Your task to perform on an android device: Open ESPN.com Image 0: 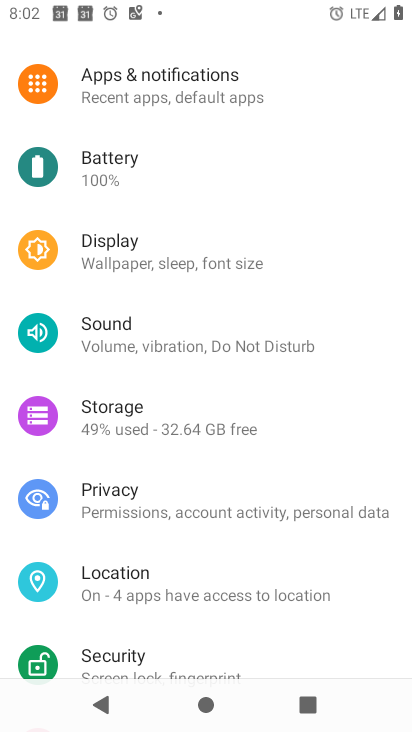
Step 0: press home button
Your task to perform on an android device: Open ESPN.com Image 1: 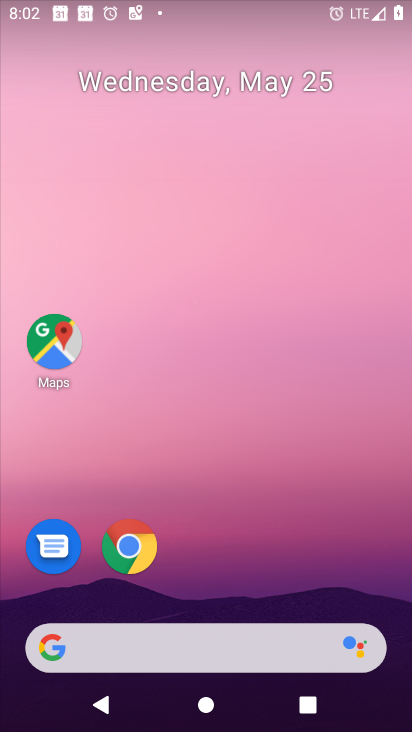
Step 1: drag from (381, 594) to (383, 233)
Your task to perform on an android device: Open ESPN.com Image 2: 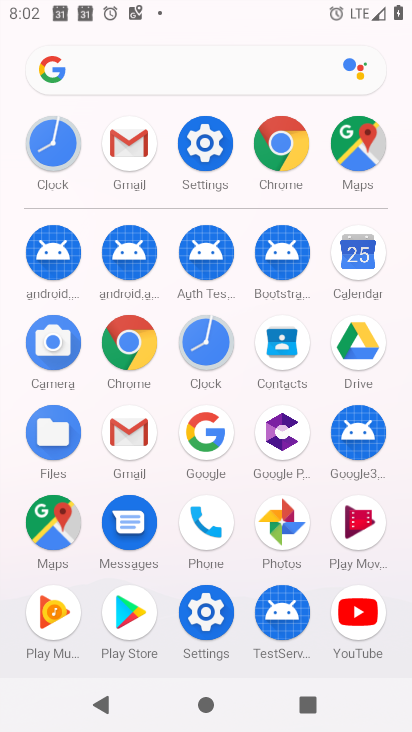
Step 2: click (136, 357)
Your task to perform on an android device: Open ESPN.com Image 3: 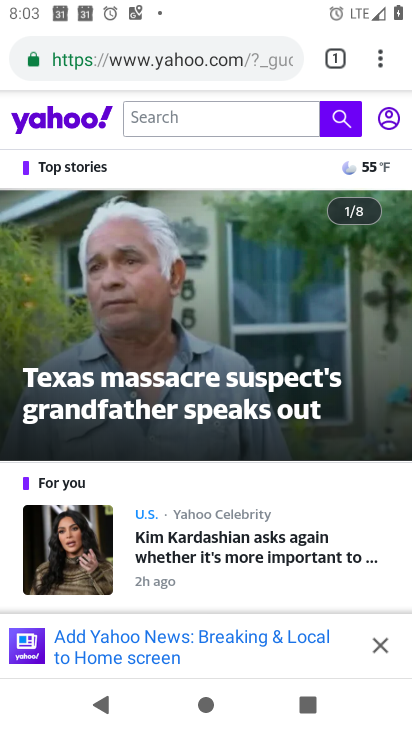
Step 3: click (221, 65)
Your task to perform on an android device: Open ESPN.com Image 4: 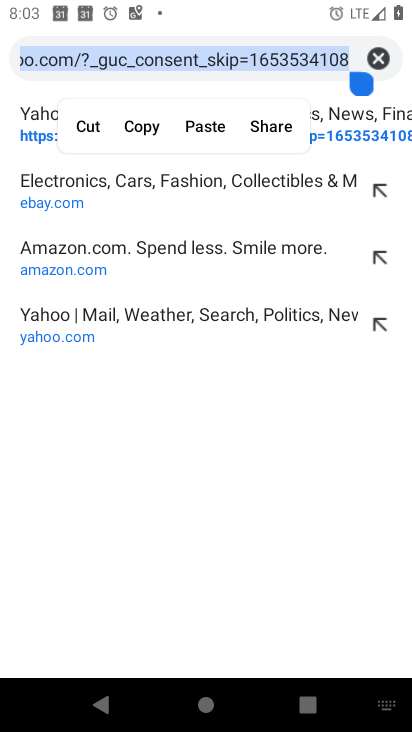
Step 4: click (383, 58)
Your task to perform on an android device: Open ESPN.com Image 5: 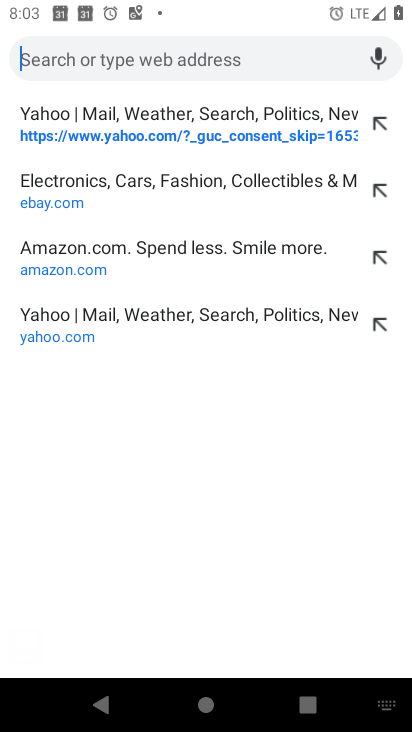
Step 5: type "espn.com"
Your task to perform on an android device: Open ESPN.com Image 6: 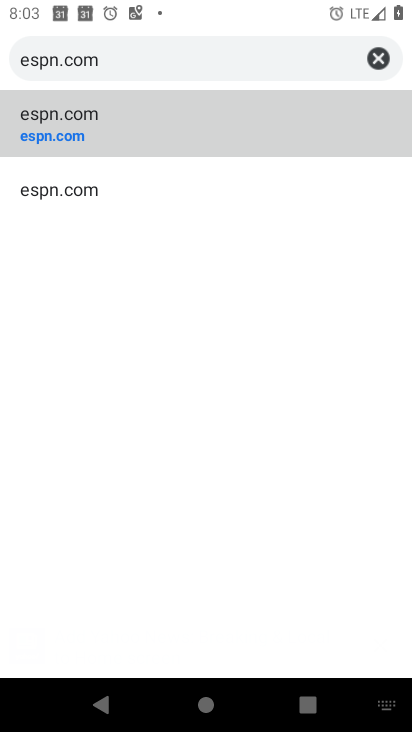
Step 6: click (232, 138)
Your task to perform on an android device: Open ESPN.com Image 7: 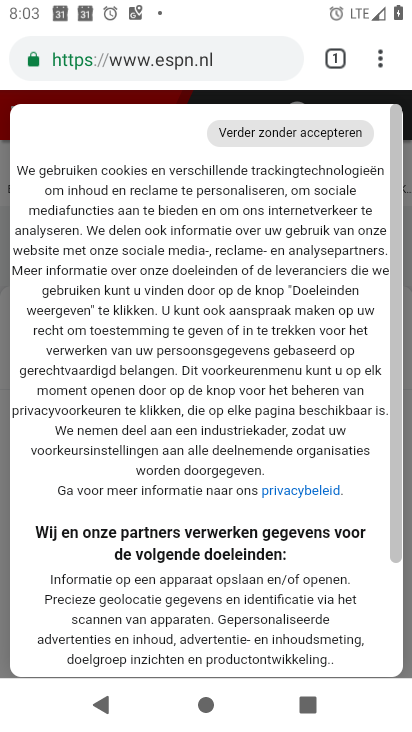
Step 7: task complete